Your task to perform on an android device: change the clock display to show seconds Image 0: 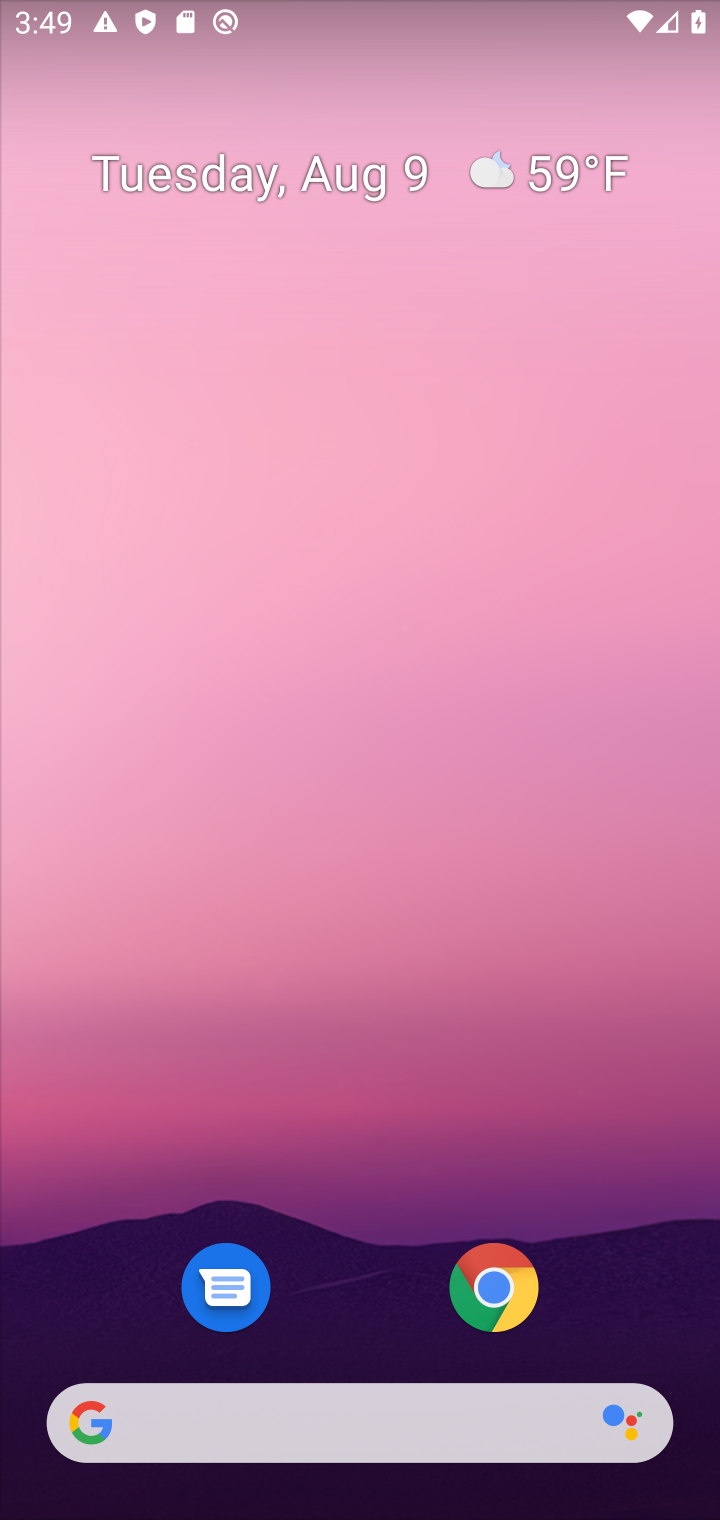
Step 0: drag from (366, 1190) to (231, 278)
Your task to perform on an android device: change the clock display to show seconds Image 1: 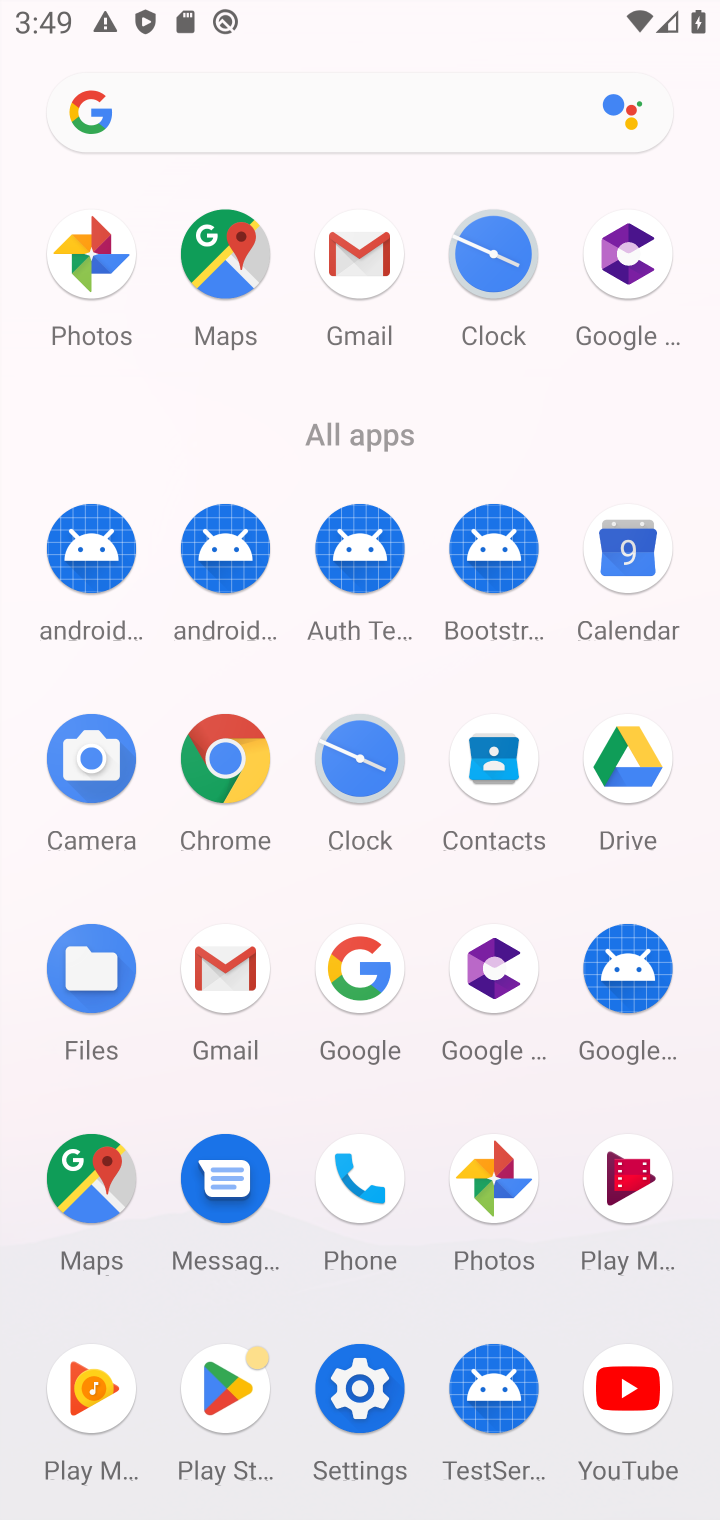
Step 1: click (634, 565)
Your task to perform on an android device: change the clock display to show seconds Image 2: 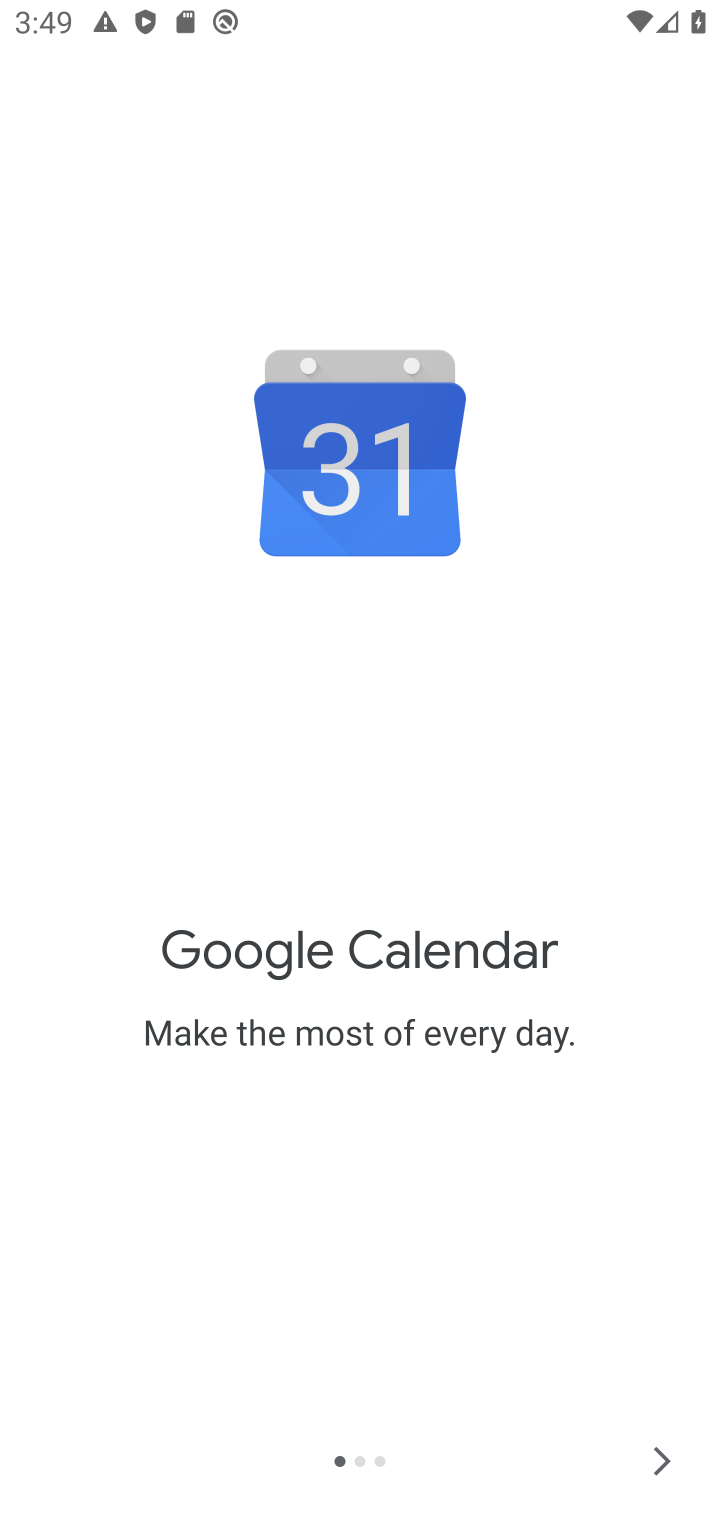
Step 2: click (666, 1445)
Your task to perform on an android device: change the clock display to show seconds Image 3: 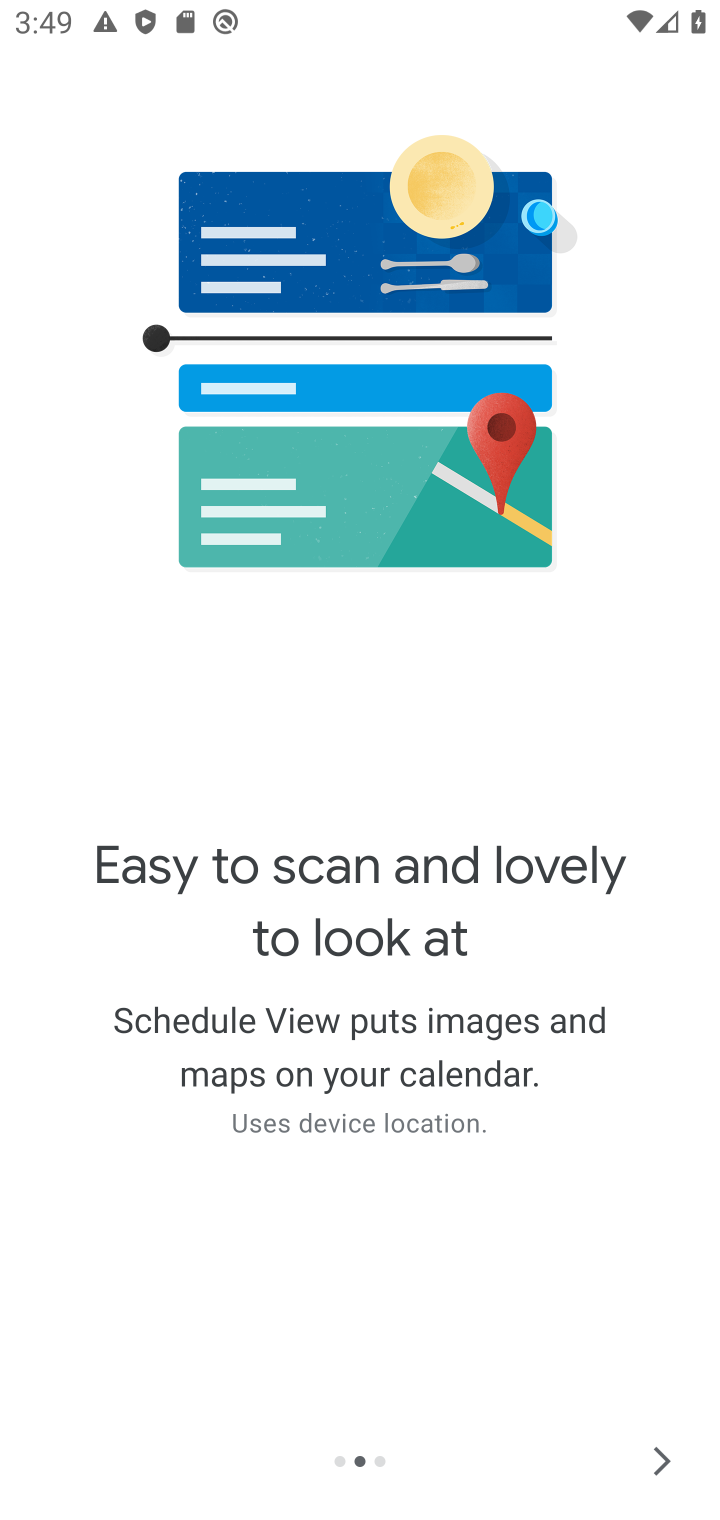
Step 3: click (666, 1445)
Your task to perform on an android device: change the clock display to show seconds Image 4: 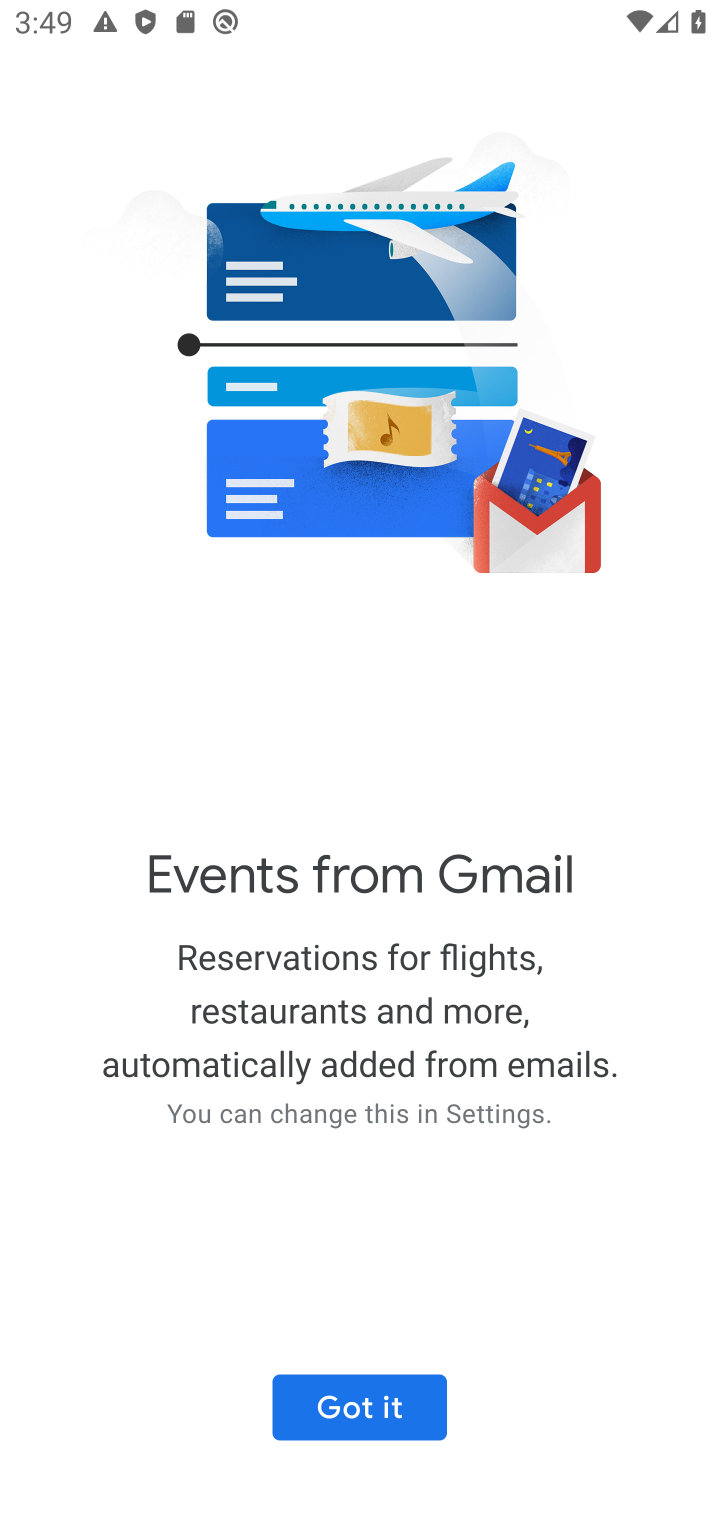
Step 4: click (354, 1414)
Your task to perform on an android device: change the clock display to show seconds Image 5: 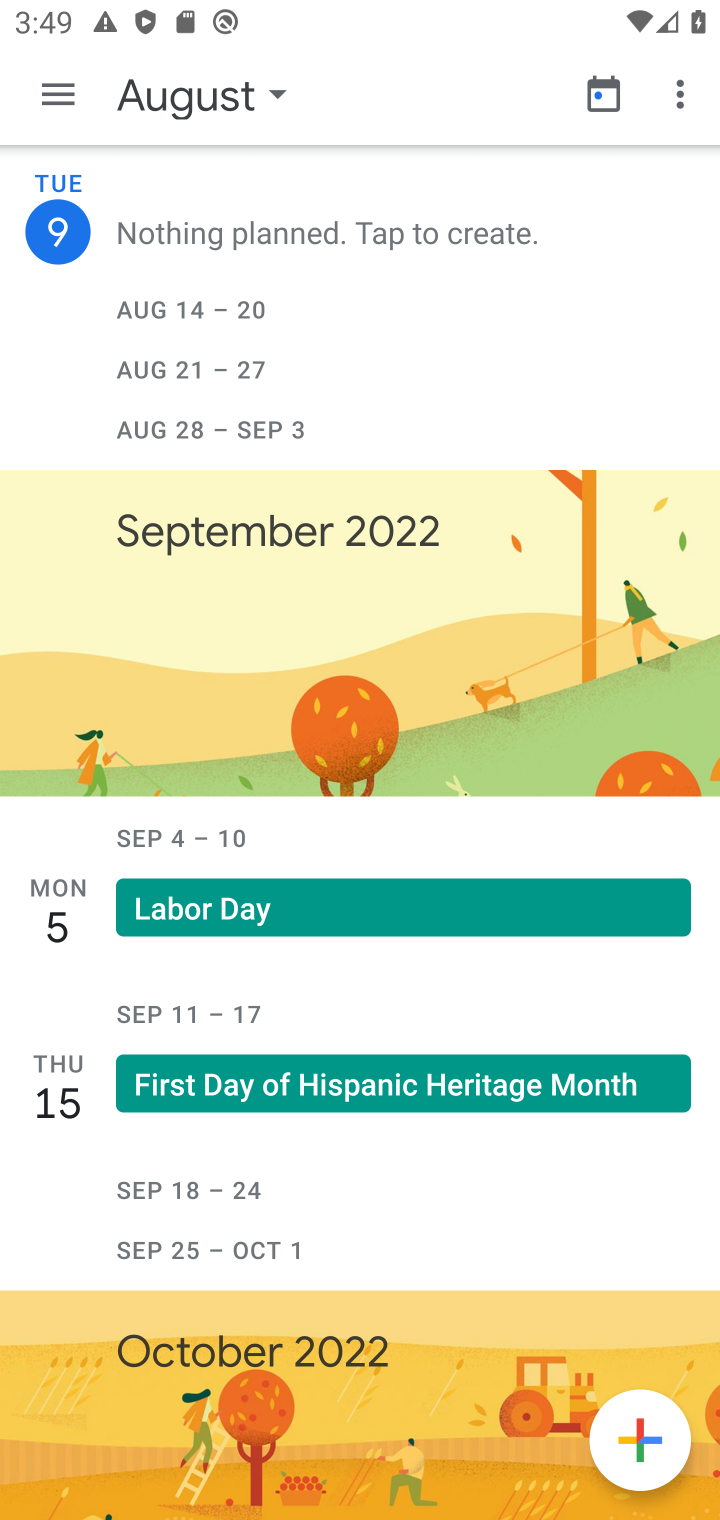
Step 5: task complete